Your task to perform on an android device: open app "Yahoo Mail" (install if not already installed) Image 0: 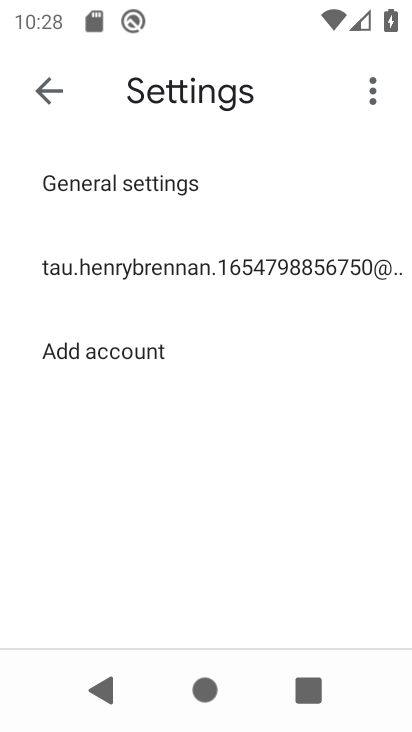
Step 0: press home button
Your task to perform on an android device: open app "Yahoo Mail" (install if not already installed) Image 1: 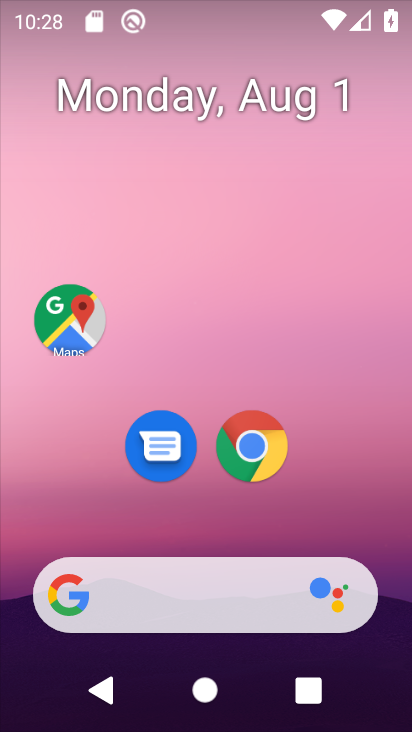
Step 1: drag from (202, 523) to (221, 64)
Your task to perform on an android device: open app "Yahoo Mail" (install if not already installed) Image 2: 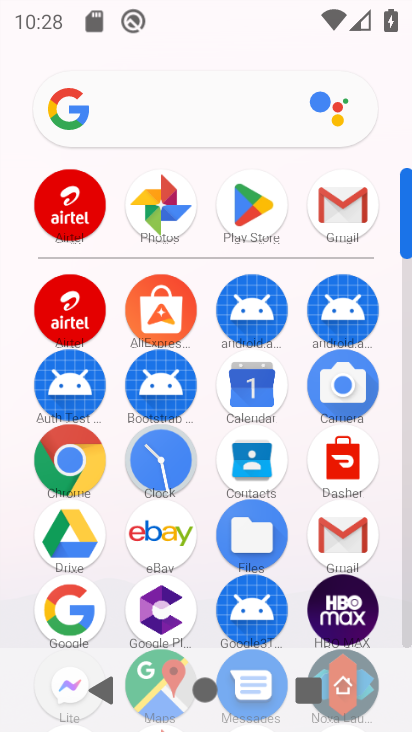
Step 2: click (264, 195)
Your task to perform on an android device: open app "Yahoo Mail" (install if not already installed) Image 3: 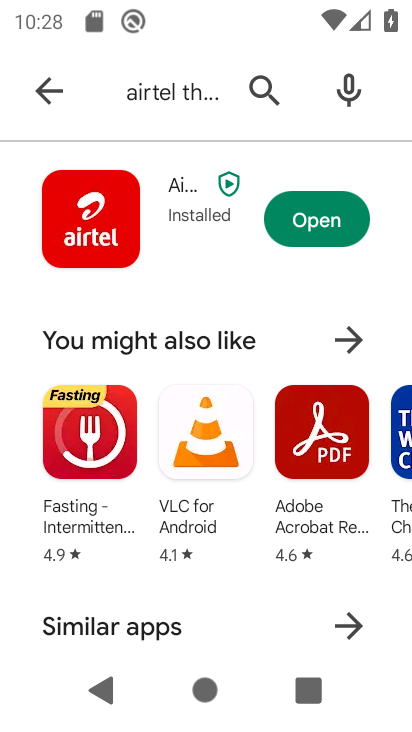
Step 3: click (268, 73)
Your task to perform on an android device: open app "Yahoo Mail" (install if not already installed) Image 4: 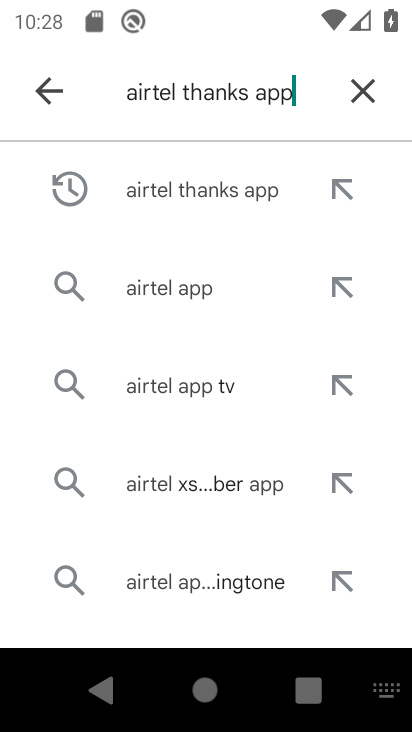
Step 4: click (371, 97)
Your task to perform on an android device: open app "Yahoo Mail" (install if not already installed) Image 5: 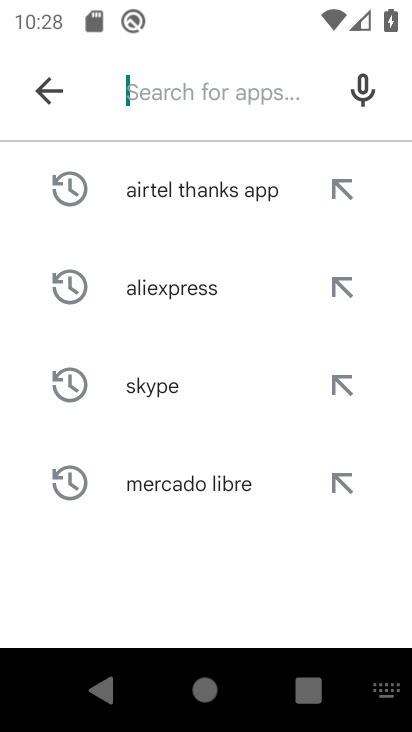
Step 5: type "Yahoo Mail"
Your task to perform on an android device: open app "Yahoo Mail" (install if not already installed) Image 6: 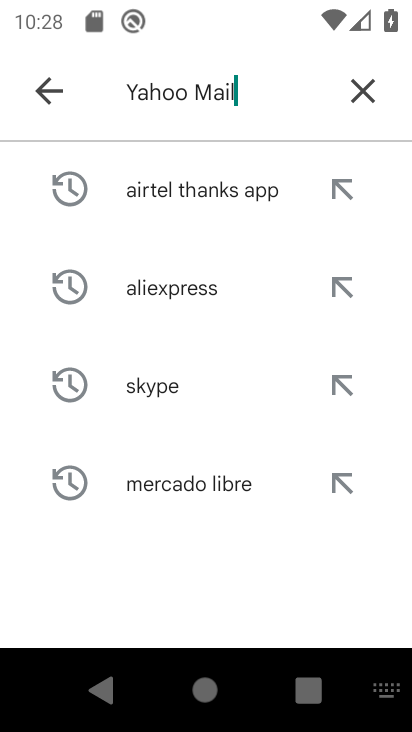
Step 6: type ""
Your task to perform on an android device: open app "Yahoo Mail" (install if not already installed) Image 7: 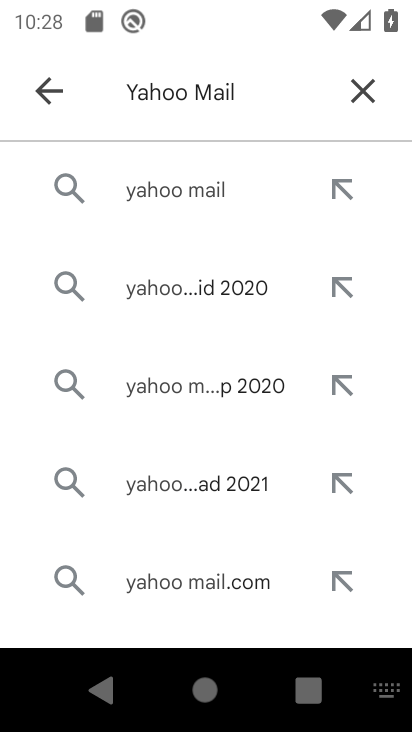
Step 7: click (162, 190)
Your task to perform on an android device: open app "Yahoo Mail" (install if not already installed) Image 8: 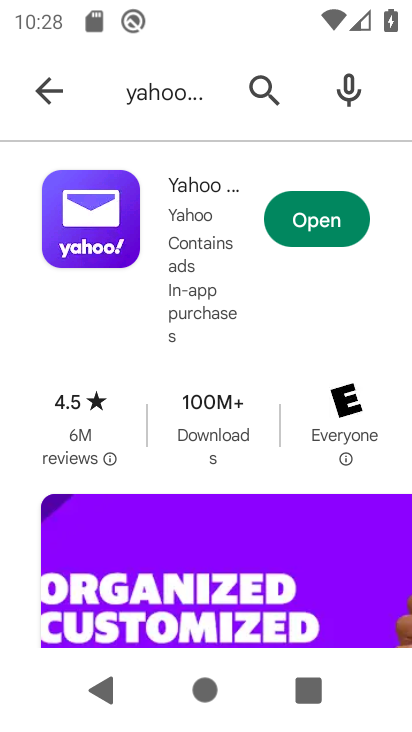
Step 8: click (313, 227)
Your task to perform on an android device: open app "Yahoo Mail" (install if not already installed) Image 9: 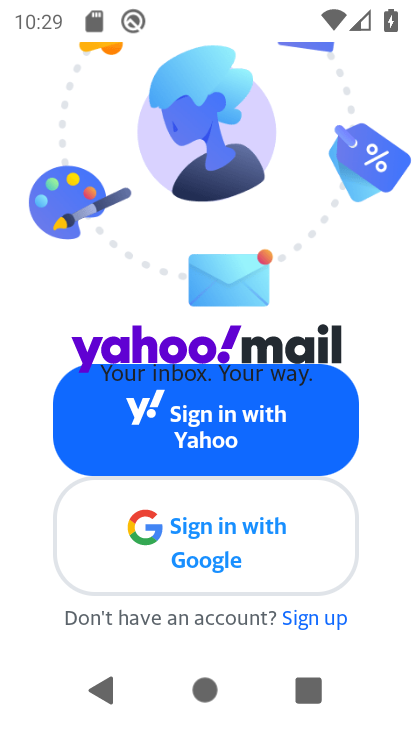
Step 9: task complete